Your task to perform on an android device: set the timer Image 0: 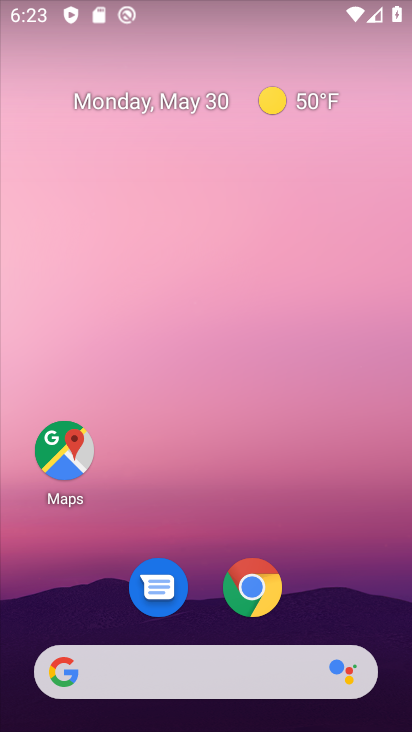
Step 0: drag from (321, 541) to (228, 27)
Your task to perform on an android device: set the timer Image 1: 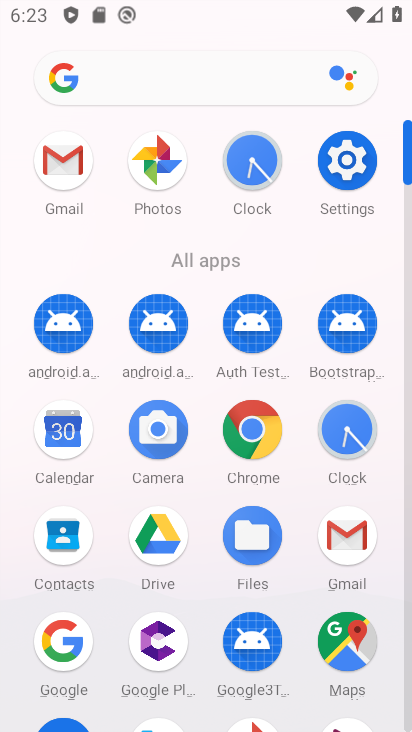
Step 1: drag from (15, 579) to (11, 233)
Your task to perform on an android device: set the timer Image 2: 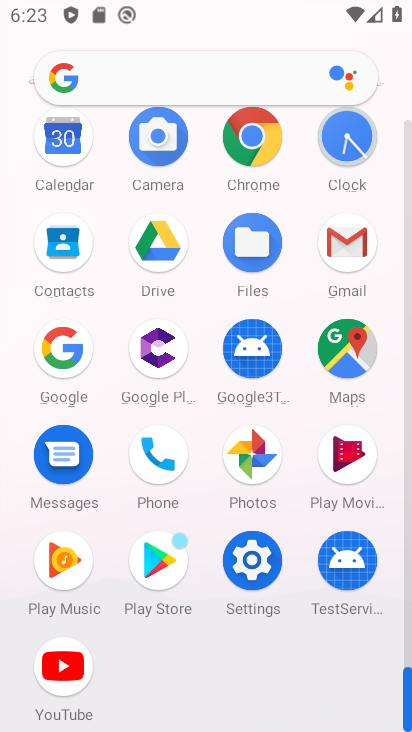
Step 2: click (349, 132)
Your task to perform on an android device: set the timer Image 3: 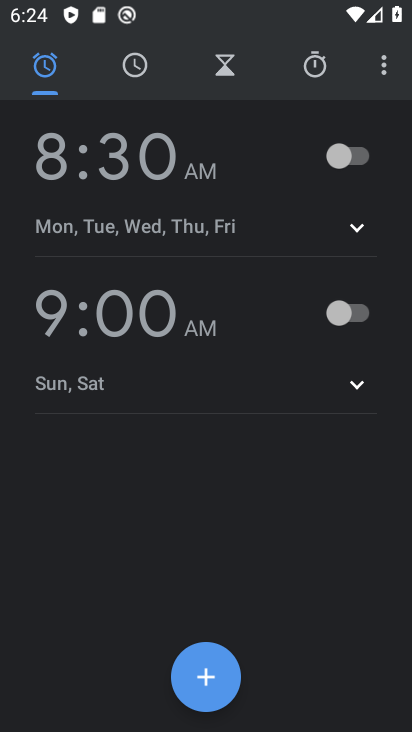
Step 3: click (233, 77)
Your task to perform on an android device: set the timer Image 4: 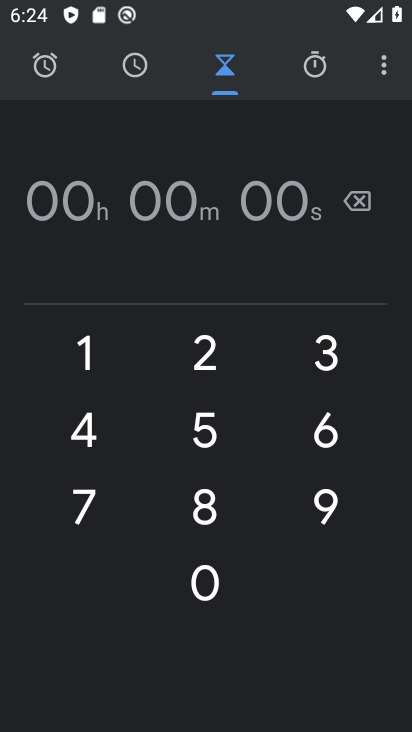
Step 4: click (193, 423)
Your task to perform on an android device: set the timer Image 5: 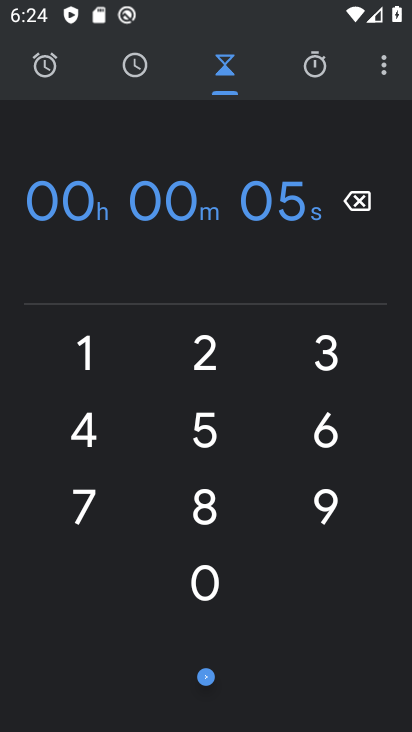
Step 5: click (205, 348)
Your task to perform on an android device: set the timer Image 6: 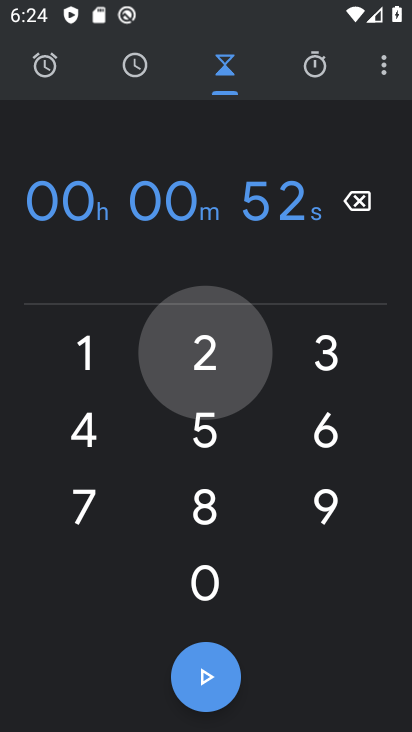
Step 6: click (118, 418)
Your task to perform on an android device: set the timer Image 7: 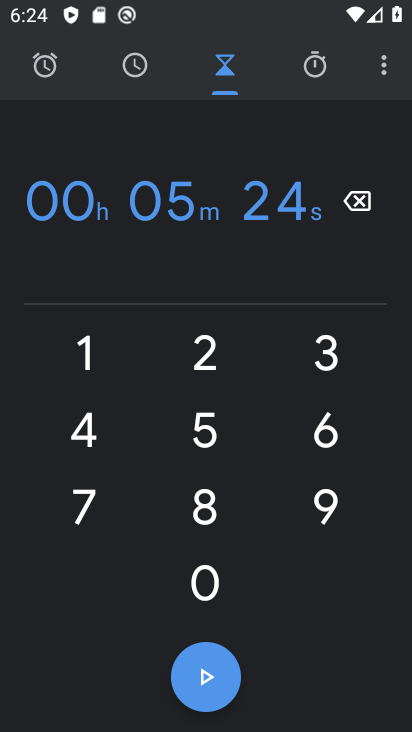
Step 7: click (205, 671)
Your task to perform on an android device: set the timer Image 8: 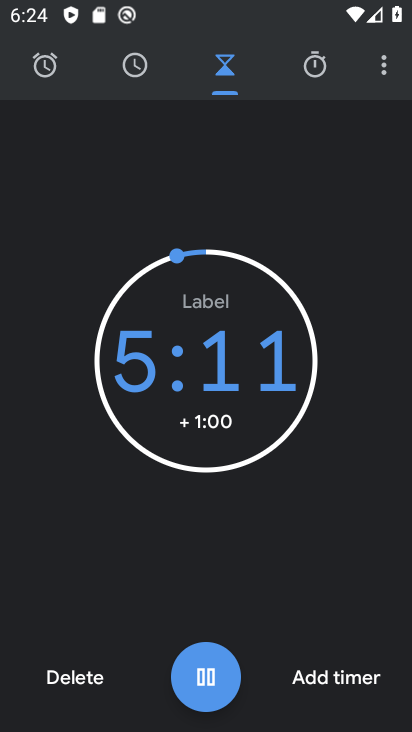
Step 8: task complete